Your task to perform on an android device: Open calendar and show me the fourth week of next month Image 0: 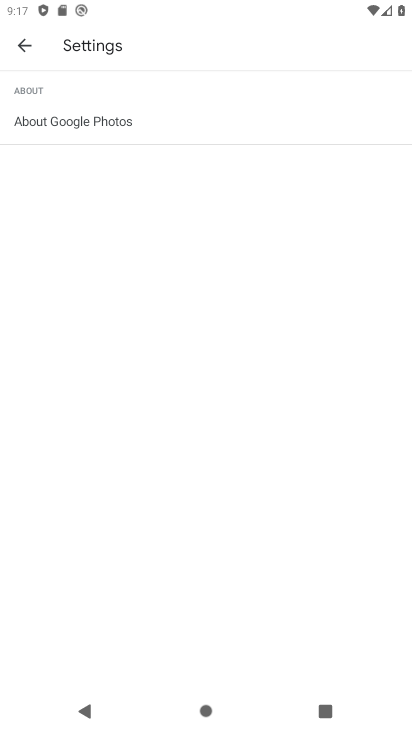
Step 0: drag from (237, 635) to (242, 268)
Your task to perform on an android device: Open calendar and show me the fourth week of next month Image 1: 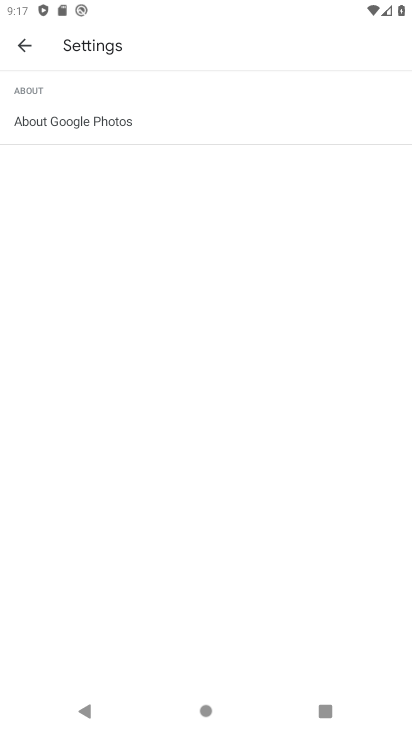
Step 1: press home button
Your task to perform on an android device: Open calendar and show me the fourth week of next month Image 2: 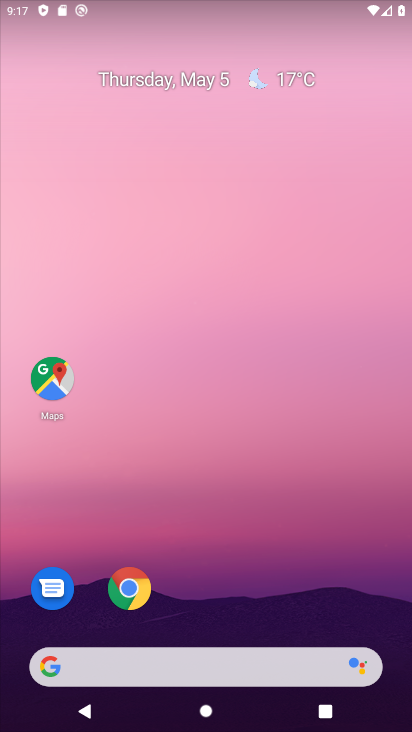
Step 2: drag from (272, 593) to (309, 67)
Your task to perform on an android device: Open calendar and show me the fourth week of next month Image 3: 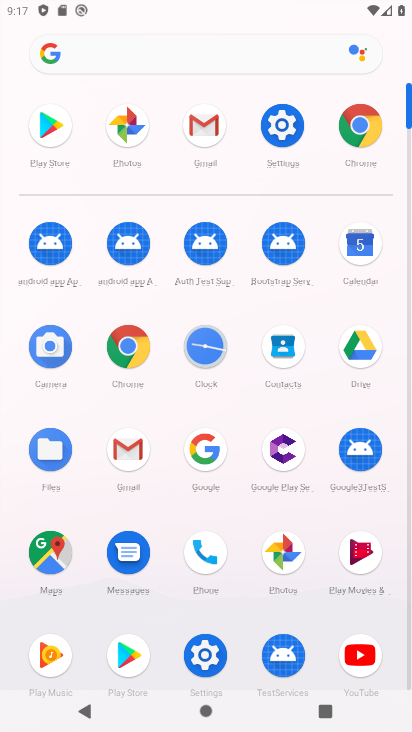
Step 3: click (364, 247)
Your task to perform on an android device: Open calendar and show me the fourth week of next month Image 4: 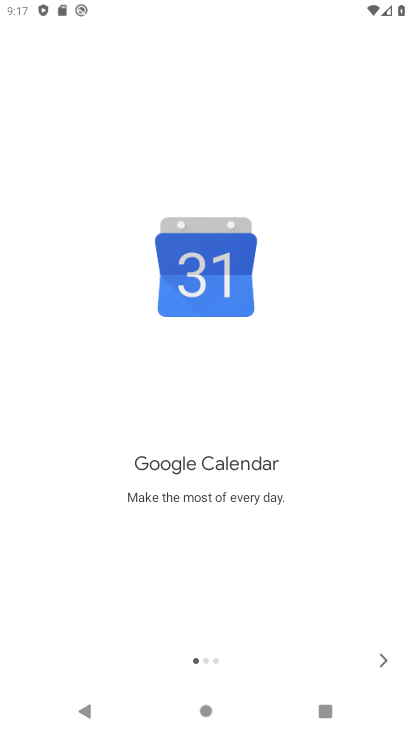
Step 4: click (366, 652)
Your task to perform on an android device: Open calendar and show me the fourth week of next month Image 5: 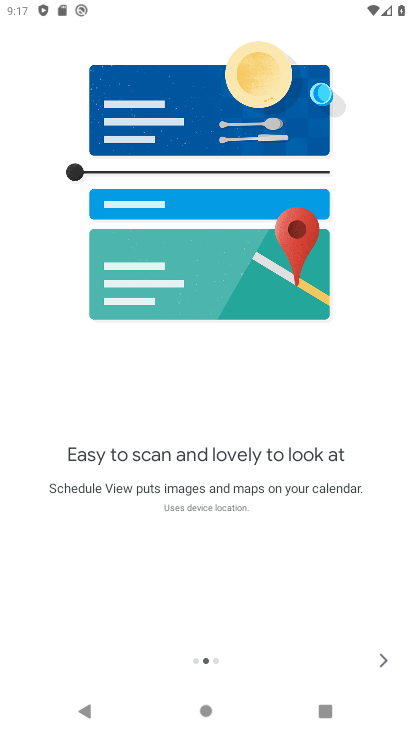
Step 5: click (365, 658)
Your task to perform on an android device: Open calendar and show me the fourth week of next month Image 6: 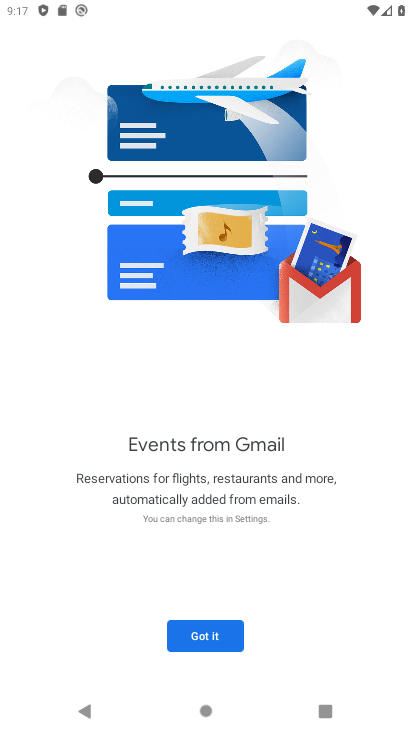
Step 6: click (365, 659)
Your task to perform on an android device: Open calendar and show me the fourth week of next month Image 7: 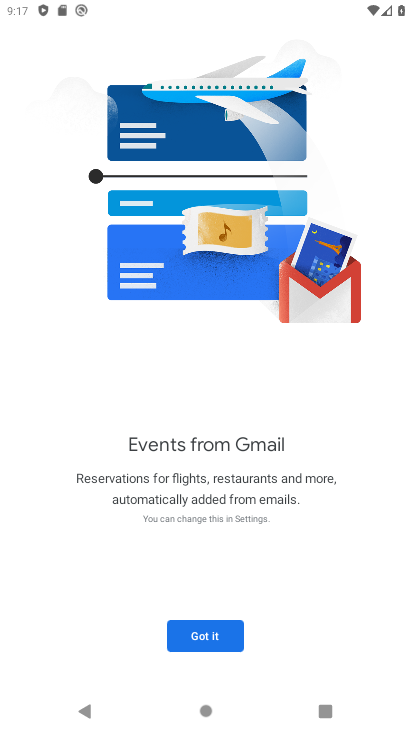
Step 7: click (205, 637)
Your task to perform on an android device: Open calendar and show me the fourth week of next month Image 8: 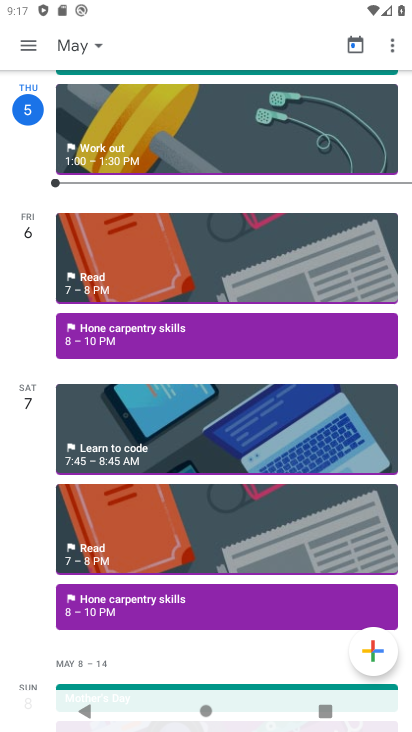
Step 8: click (33, 43)
Your task to perform on an android device: Open calendar and show me the fourth week of next month Image 9: 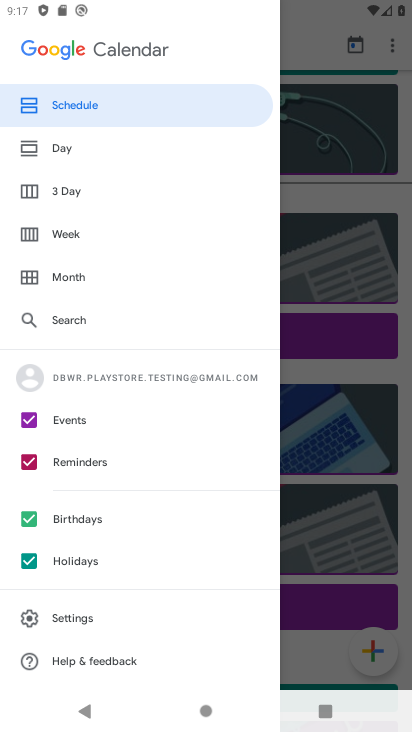
Step 9: click (68, 276)
Your task to perform on an android device: Open calendar and show me the fourth week of next month Image 10: 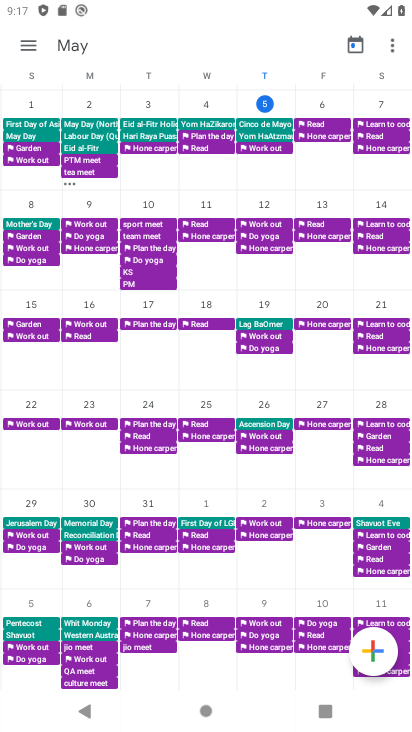
Step 10: task complete